Your task to perform on an android device: Open Yahoo.com Image 0: 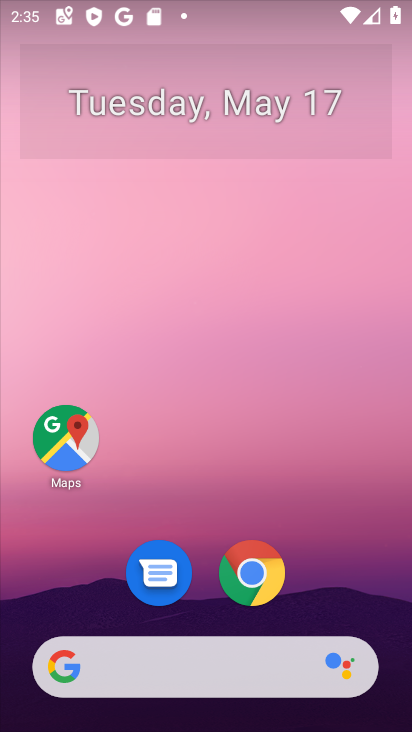
Step 0: drag from (351, 526) to (326, 101)
Your task to perform on an android device: Open Yahoo.com Image 1: 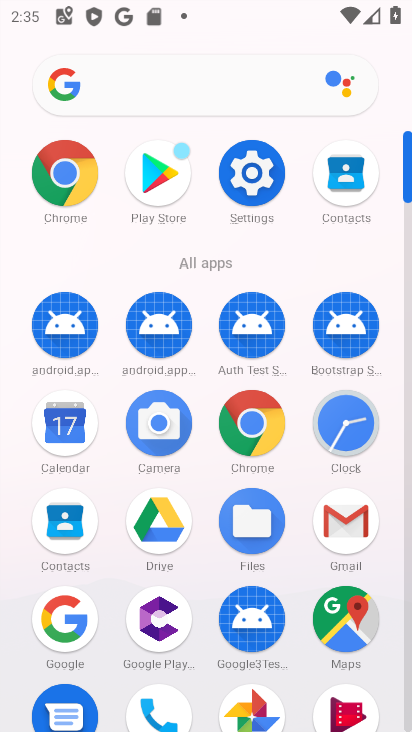
Step 1: click (83, 182)
Your task to perform on an android device: Open Yahoo.com Image 2: 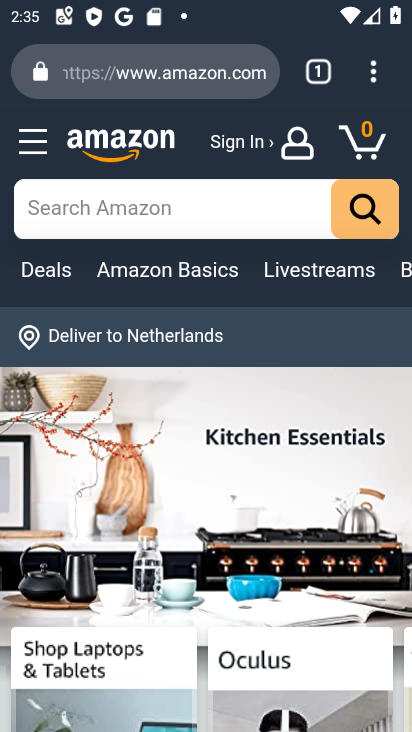
Step 2: click (175, 70)
Your task to perform on an android device: Open Yahoo.com Image 3: 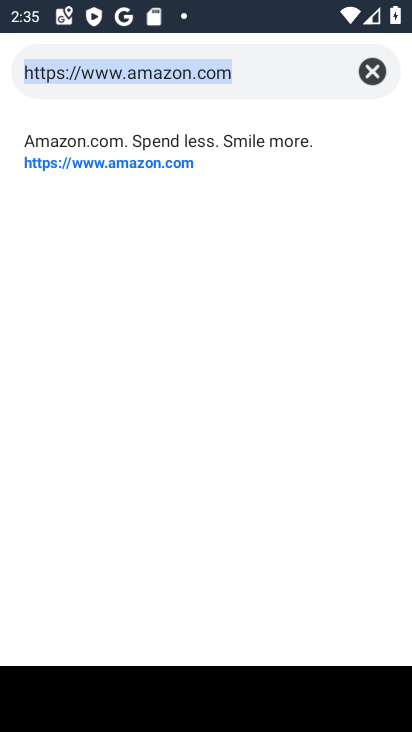
Step 3: click (368, 74)
Your task to perform on an android device: Open Yahoo.com Image 4: 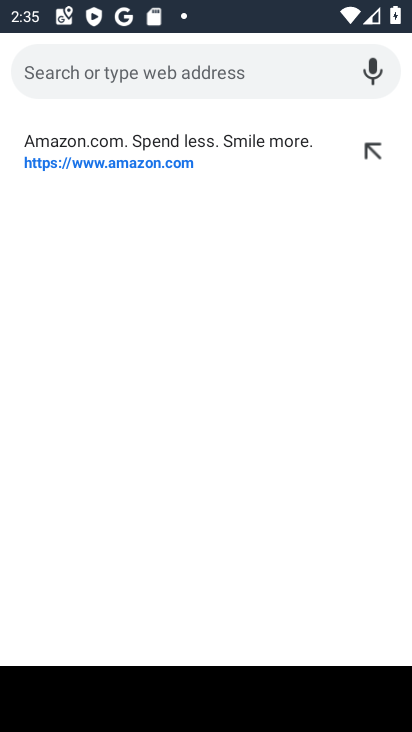
Step 4: type "yahoo.com"
Your task to perform on an android device: Open Yahoo.com Image 5: 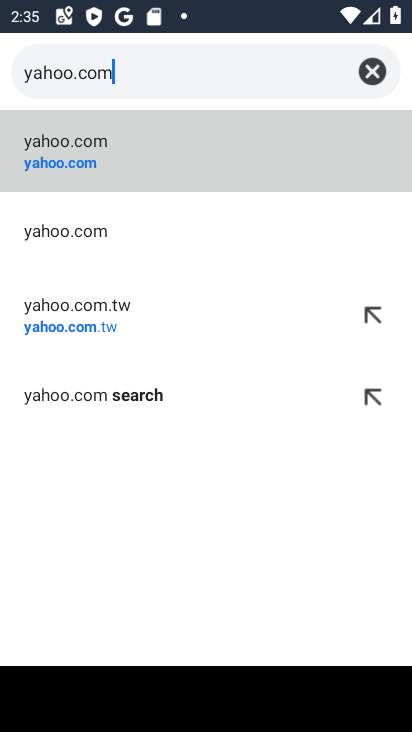
Step 5: click (83, 161)
Your task to perform on an android device: Open Yahoo.com Image 6: 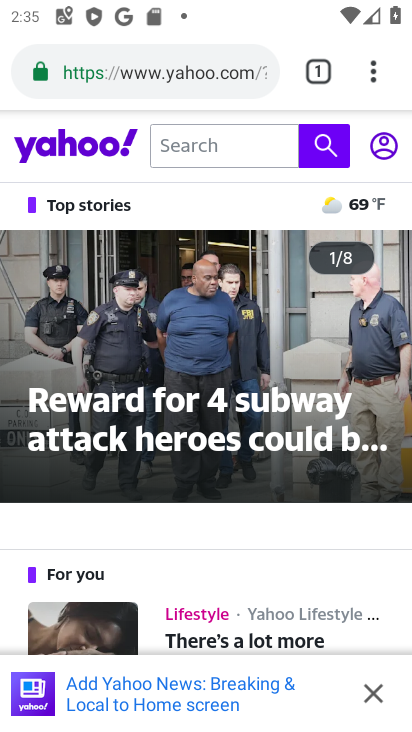
Step 6: task complete